Your task to perform on an android device: read, delete, or share a saved page in the chrome app Image 0: 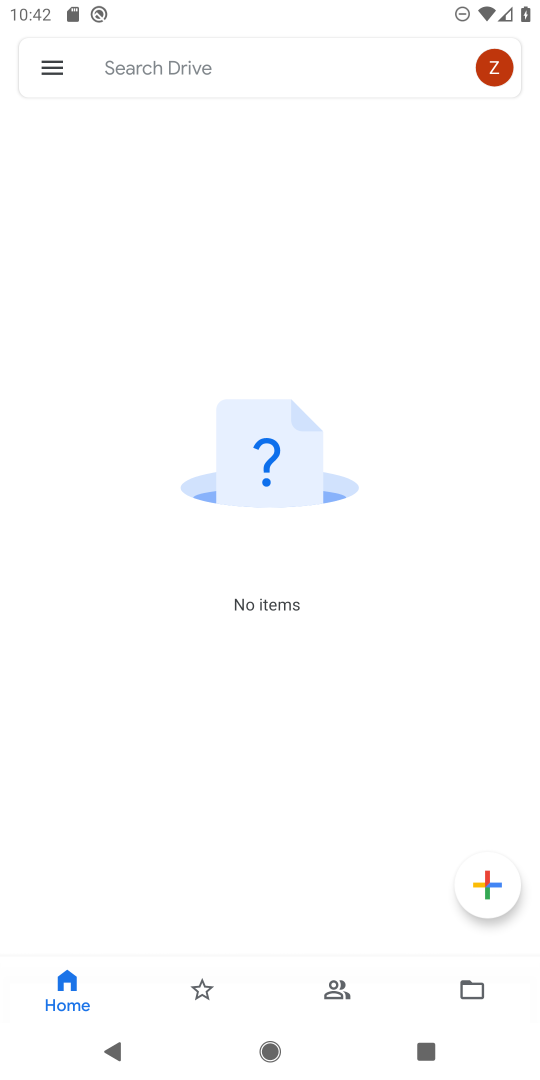
Step 0: press back button
Your task to perform on an android device: read, delete, or share a saved page in the chrome app Image 1: 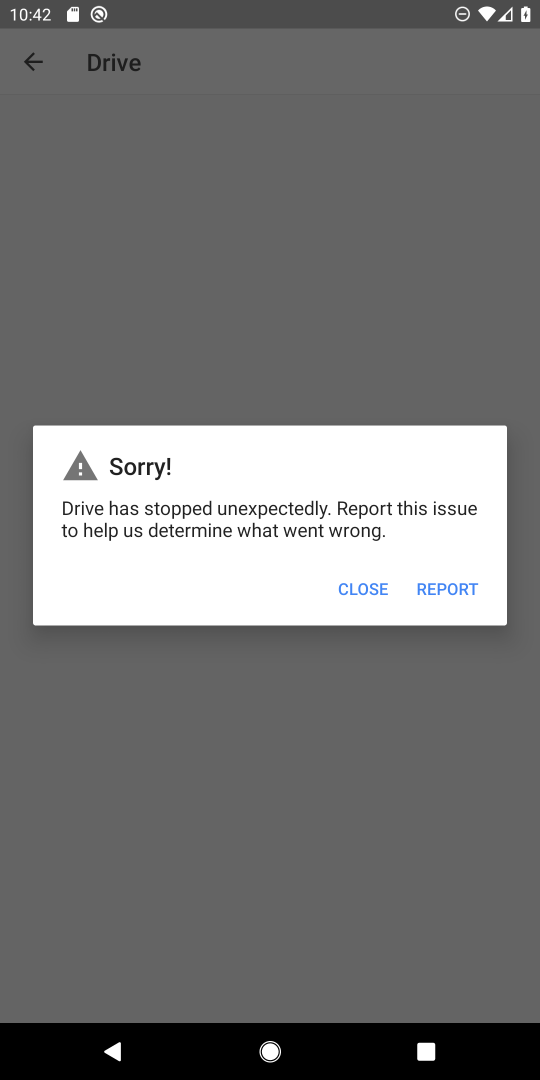
Step 1: press home button
Your task to perform on an android device: read, delete, or share a saved page in the chrome app Image 2: 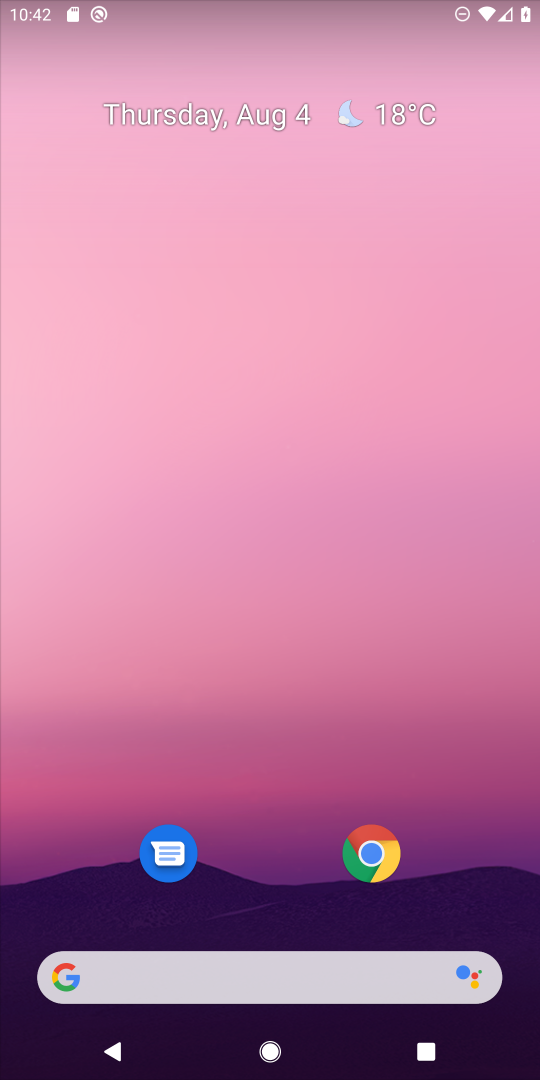
Step 2: drag from (269, 927) to (201, 100)
Your task to perform on an android device: read, delete, or share a saved page in the chrome app Image 3: 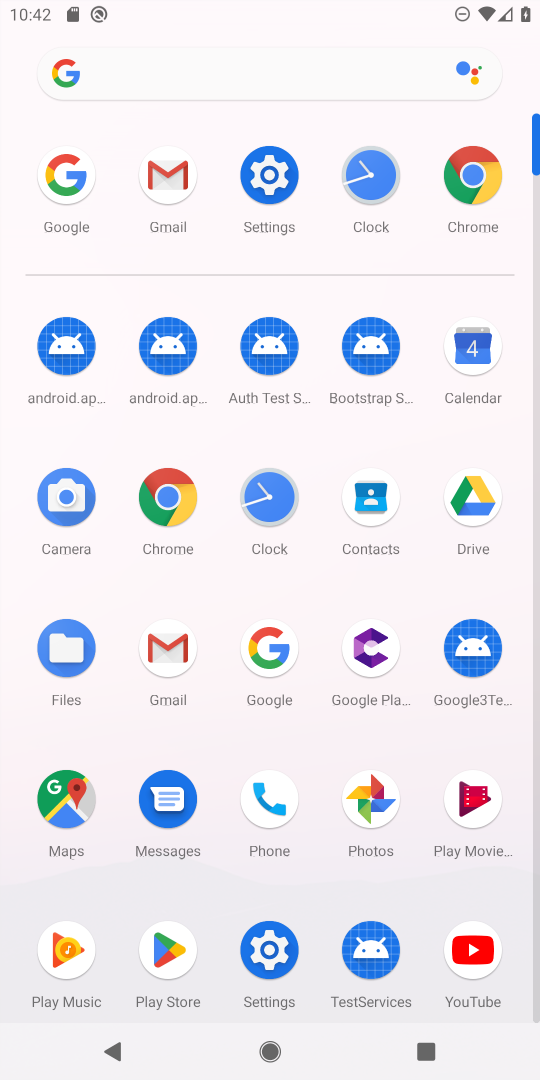
Step 3: click (454, 166)
Your task to perform on an android device: read, delete, or share a saved page in the chrome app Image 4: 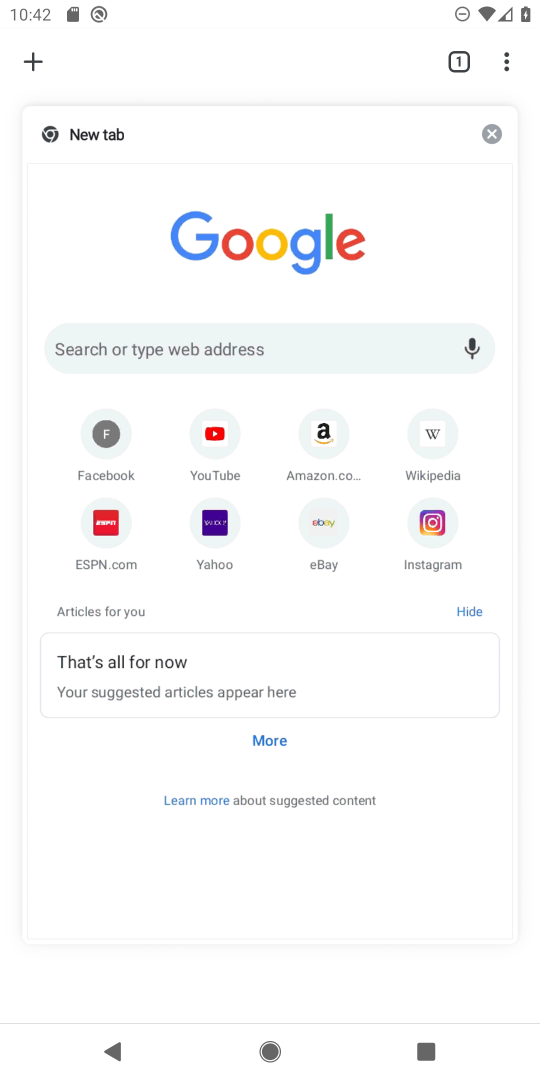
Step 4: click (431, 173)
Your task to perform on an android device: read, delete, or share a saved page in the chrome app Image 5: 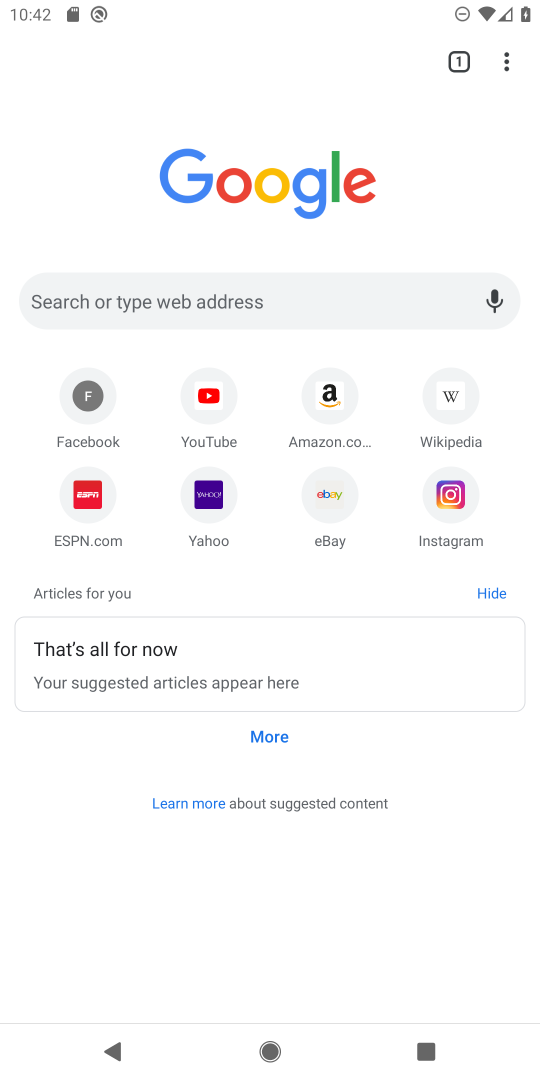
Step 5: click (504, 63)
Your task to perform on an android device: read, delete, or share a saved page in the chrome app Image 6: 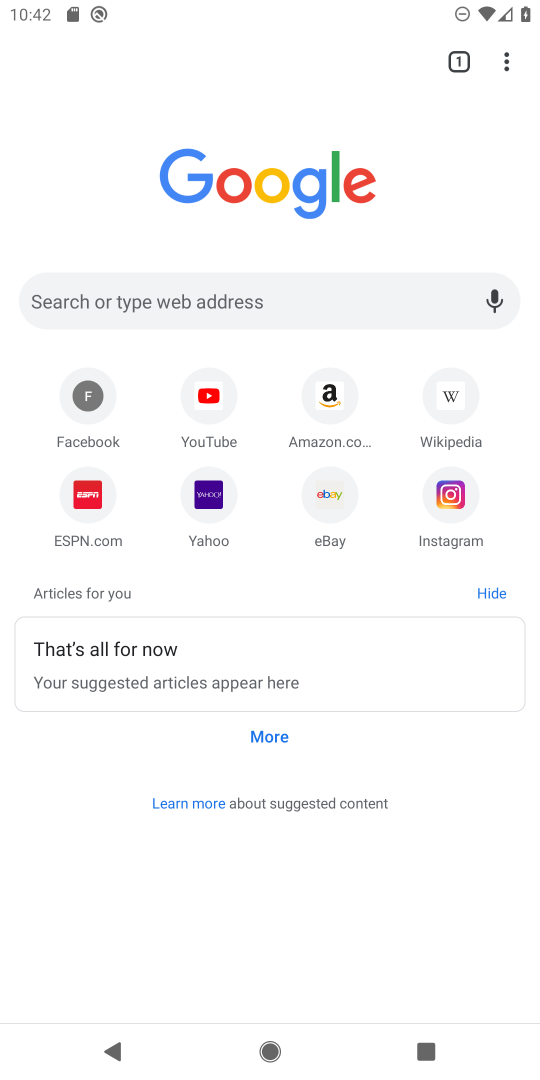
Step 6: task complete